Your task to perform on an android device: Go to display settings Image 0: 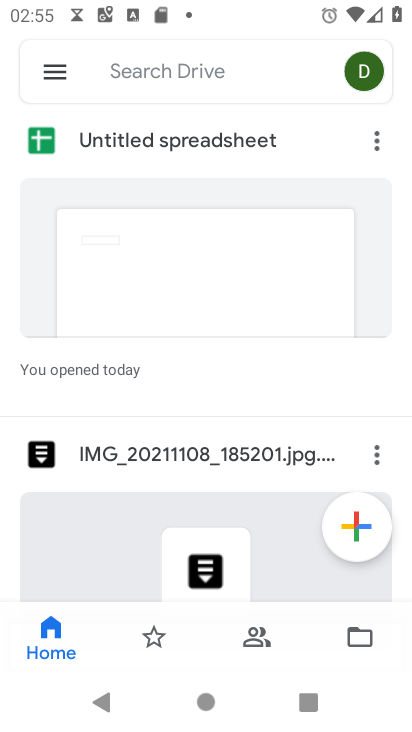
Step 0: press home button
Your task to perform on an android device: Go to display settings Image 1: 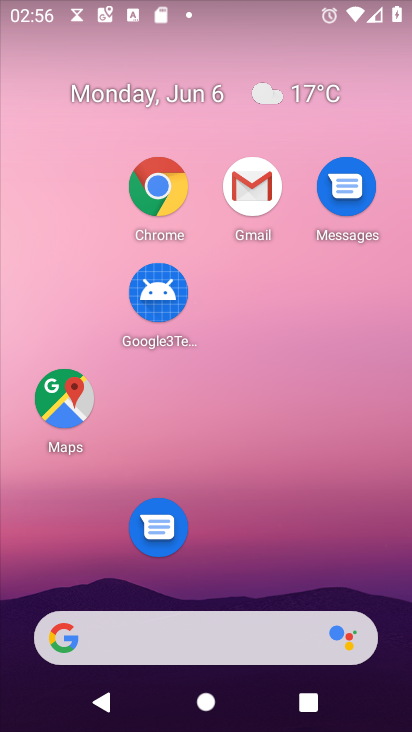
Step 1: drag from (302, 445) to (329, 21)
Your task to perform on an android device: Go to display settings Image 2: 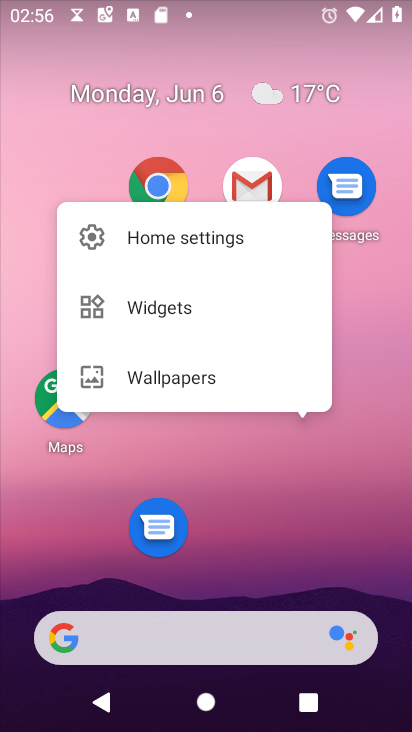
Step 2: click (354, 486)
Your task to perform on an android device: Go to display settings Image 3: 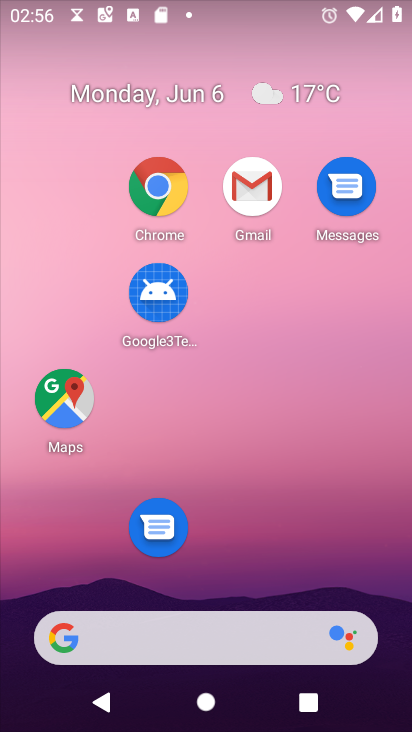
Step 3: drag from (329, 541) to (281, 21)
Your task to perform on an android device: Go to display settings Image 4: 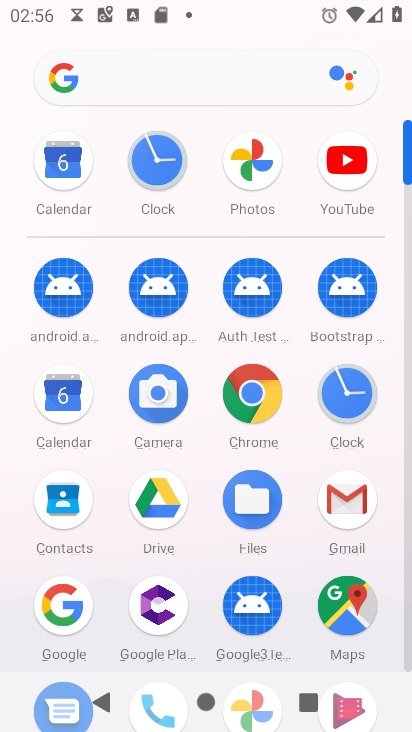
Step 4: click (410, 425)
Your task to perform on an android device: Go to display settings Image 5: 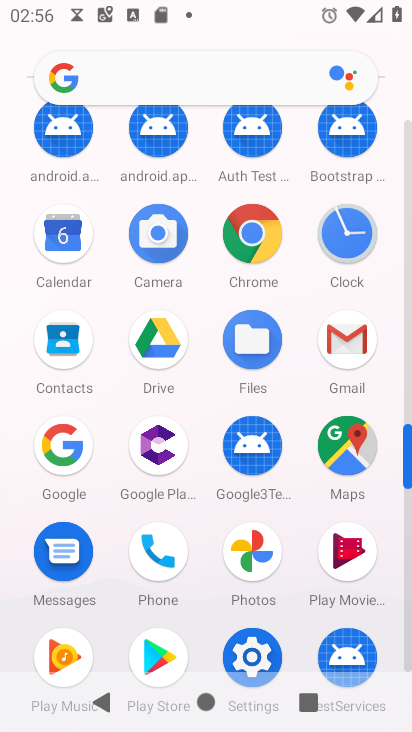
Step 5: click (404, 563)
Your task to perform on an android device: Go to display settings Image 6: 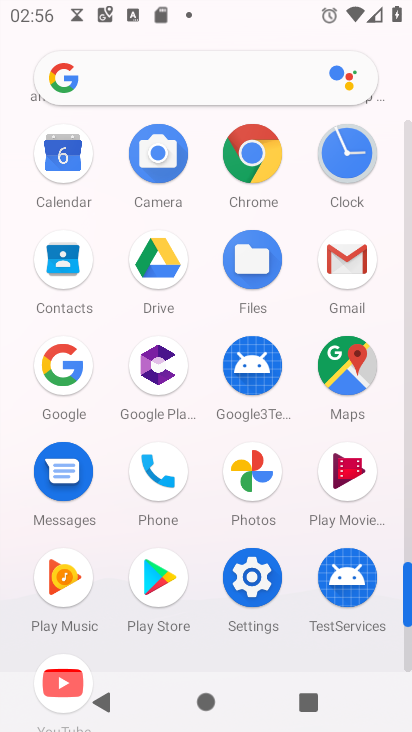
Step 6: click (234, 576)
Your task to perform on an android device: Go to display settings Image 7: 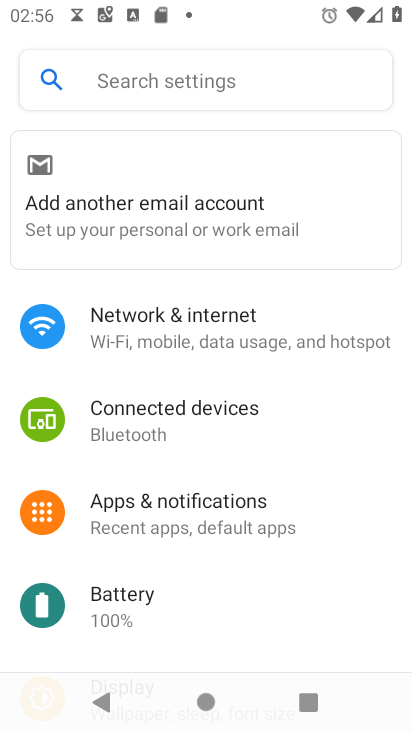
Step 7: drag from (356, 582) to (332, 199)
Your task to perform on an android device: Go to display settings Image 8: 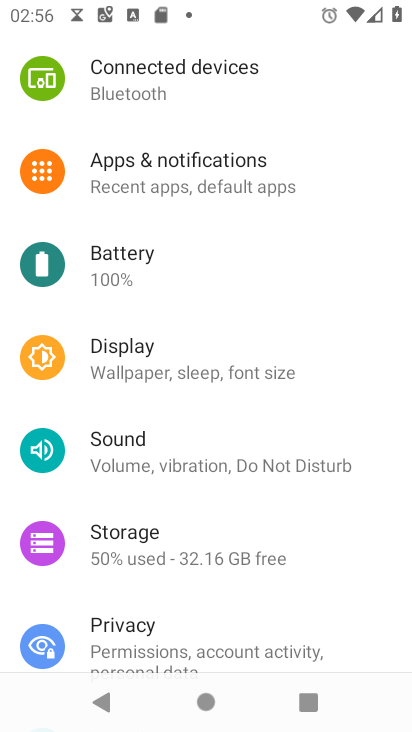
Step 8: click (121, 355)
Your task to perform on an android device: Go to display settings Image 9: 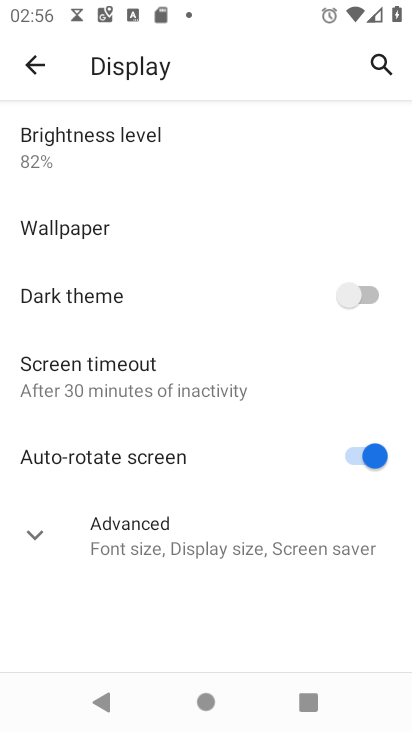
Step 9: task complete